Your task to perform on an android device: Check the weather Image 0: 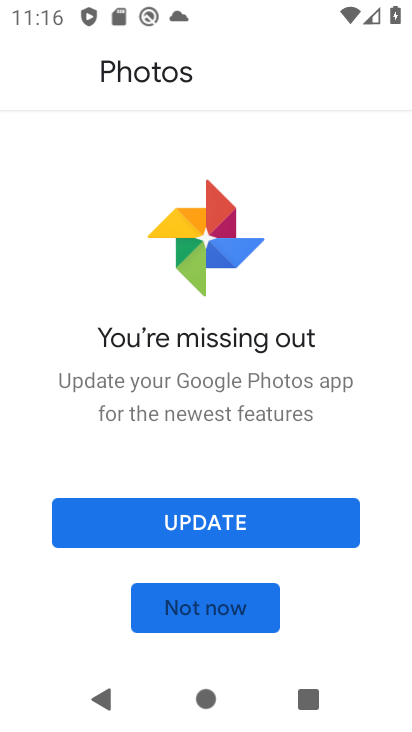
Step 0: press home button
Your task to perform on an android device: Check the weather Image 1: 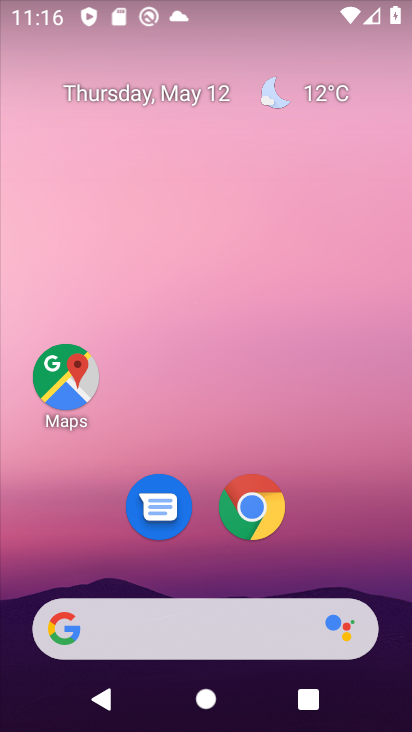
Step 1: click (320, 92)
Your task to perform on an android device: Check the weather Image 2: 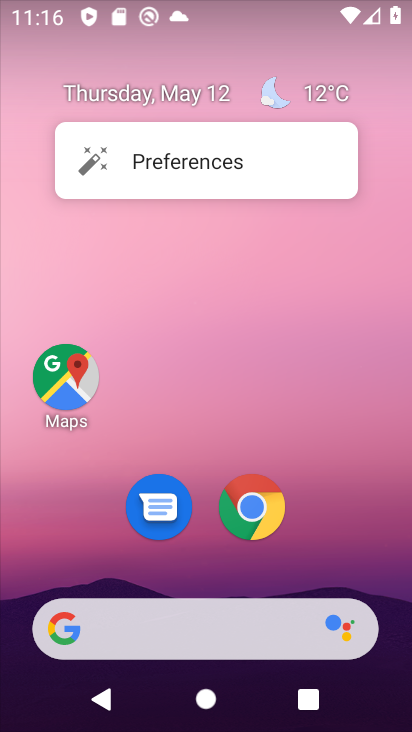
Step 2: click (318, 88)
Your task to perform on an android device: Check the weather Image 3: 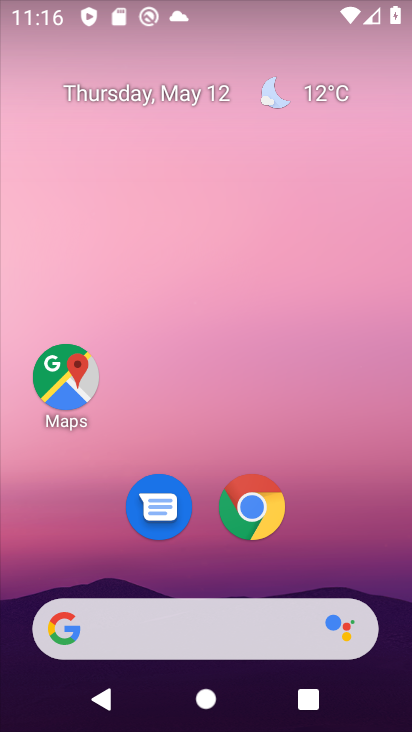
Step 3: click (318, 88)
Your task to perform on an android device: Check the weather Image 4: 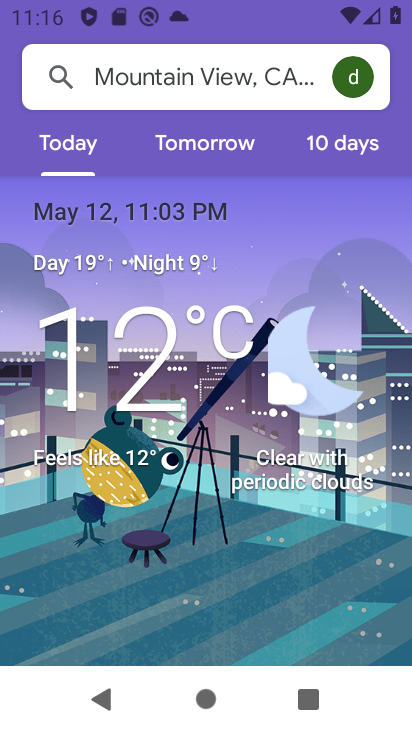
Step 4: task complete